Your task to perform on an android device: turn on javascript in the chrome app Image 0: 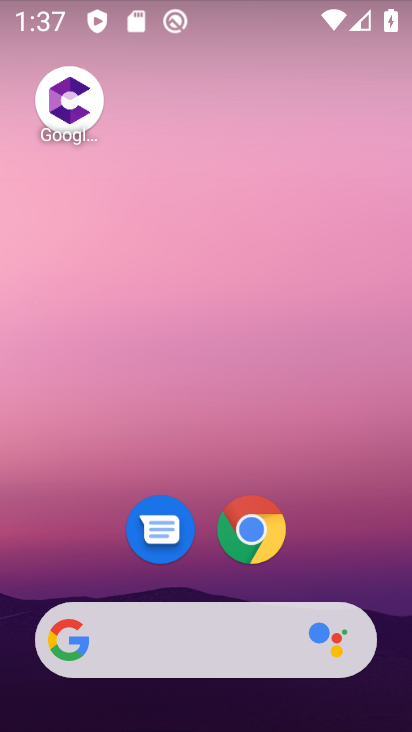
Step 0: click (252, 539)
Your task to perform on an android device: turn on javascript in the chrome app Image 1: 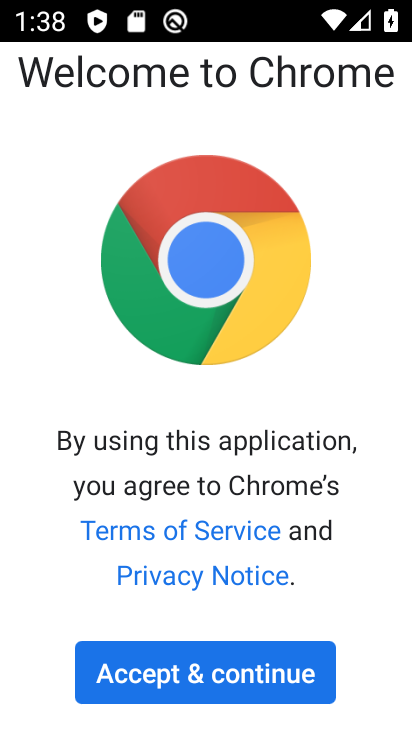
Step 1: click (258, 638)
Your task to perform on an android device: turn on javascript in the chrome app Image 2: 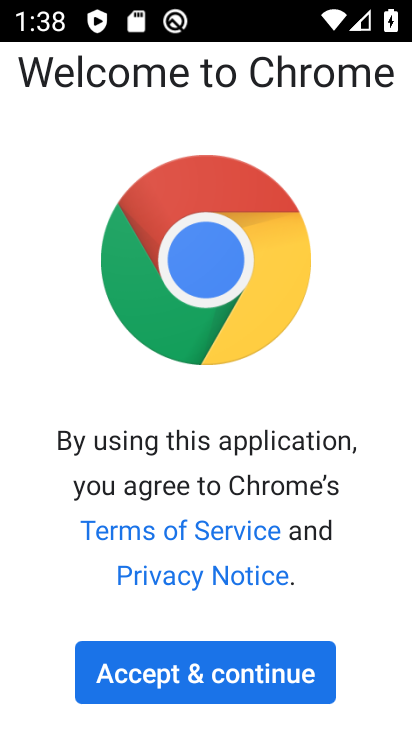
Step 2: click (209, 674)
Your task to perform on an android device: turn on javascript in the chrome app Image 3: 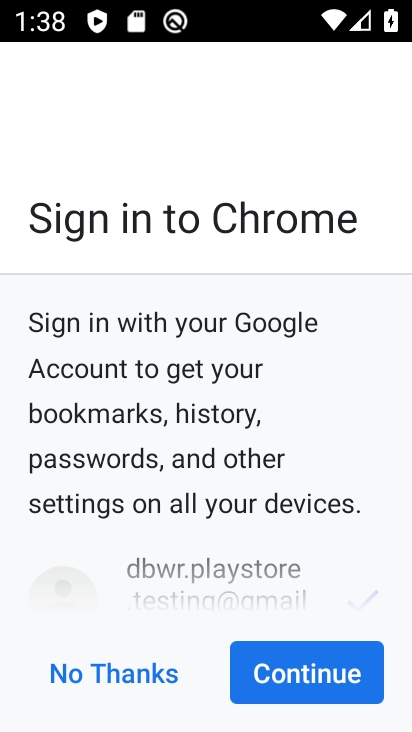
Step 3: click (364, 653)
Your task to perform on an android device: turn on javascript in the chrome app Image 4: 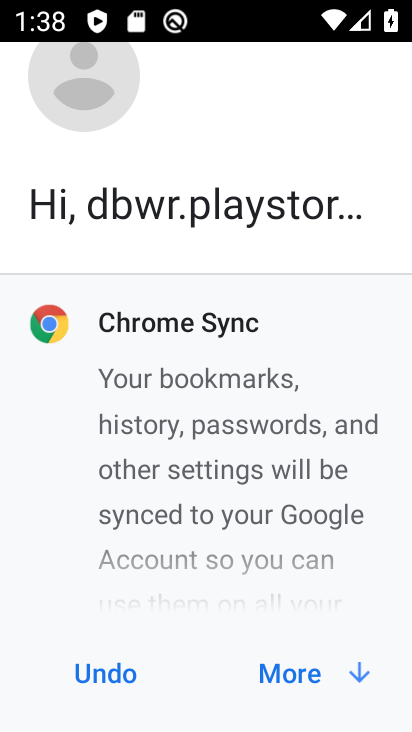
Step 4: click (352, 666)
Your task to perform on an android device: turn on javascript in the chrome app Image 5: 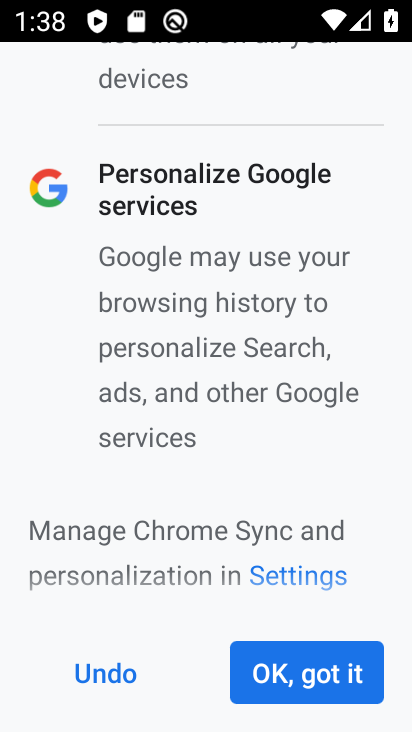
Step 5: click (285, 667)
Your task to perform on an android device: turn on javascript in the chrome app Image 6: 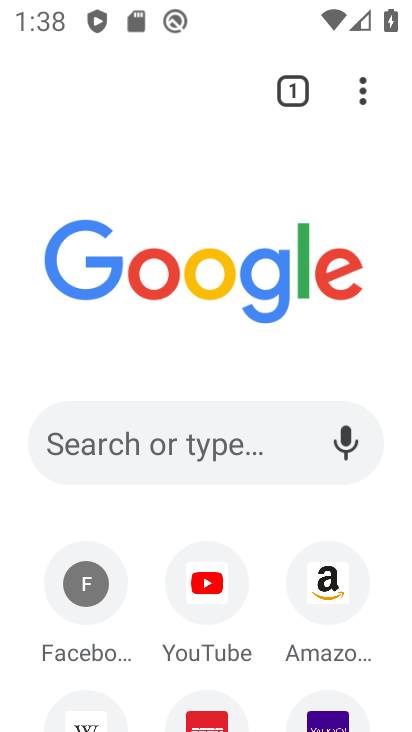
Step 6: click (375, 112)
Your task to perform on an android device: turn on javascript in the chrome app Image 7: 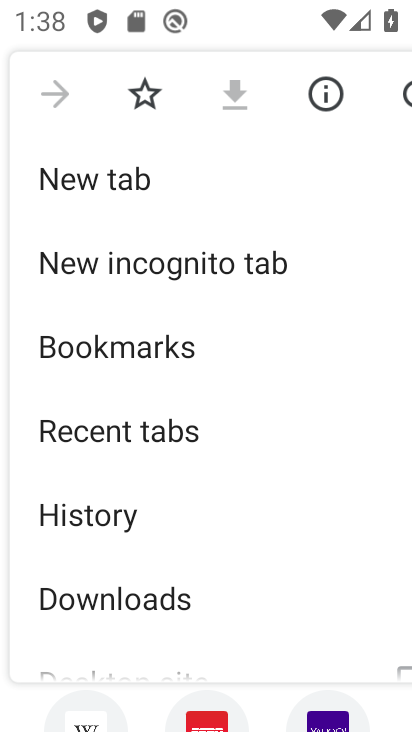
Step 7: drag from (234, 501) to (177, 204)
Your task to perform on an android device: turn on javascript in the chrome app Image 8: 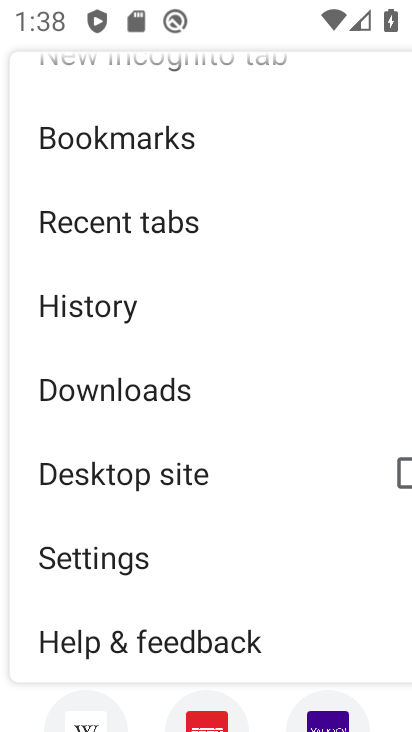
Step 8: click (201, 563)
Your task to perform on an android device: turn on javascript in the chrome app Image 9: 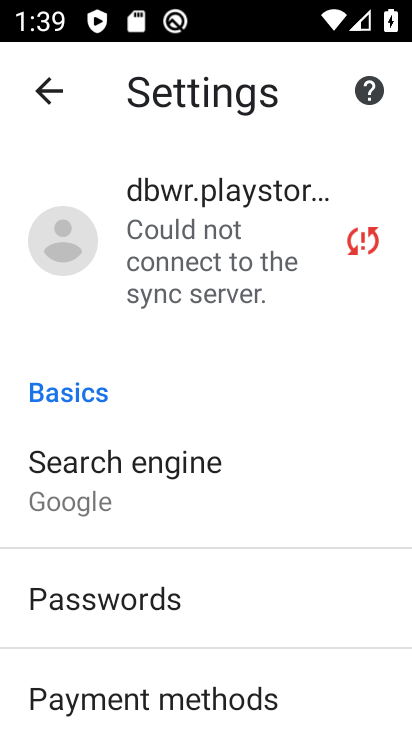
Step 9: drag from (188, 525) to (152, 280)
Your task to perform on an android device: turn on javascript in the chrome app Image 10: 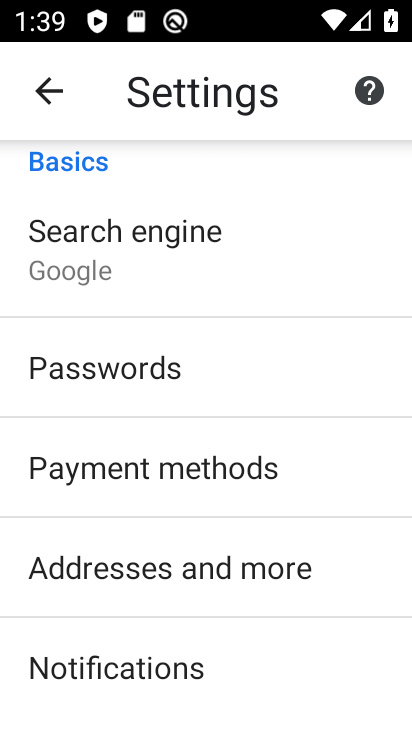
Step 10: drag from (233, 622) to (155, 304)
Your task to perform on an android device: turn on javascript in the chrome app Image 11: 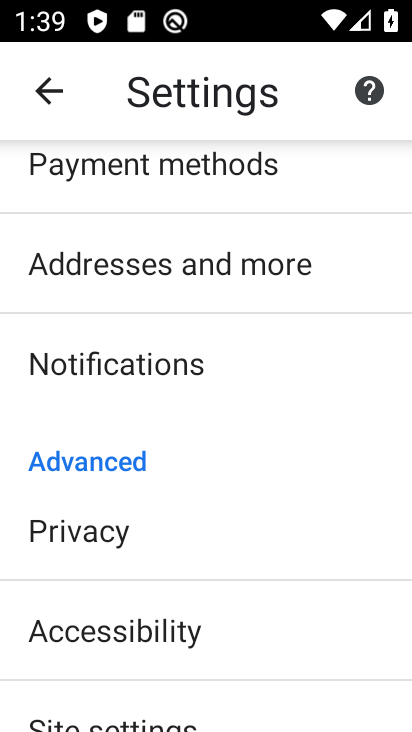
Step 11: click (209, 715)
Your task to perform on an android device: turn on javascript in the chrome app Image 12: 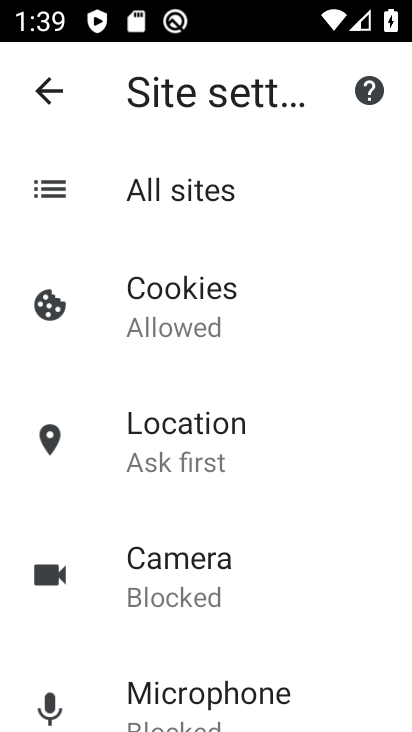
Step 12: drag from (307, 605) to (263, 386)
Your task to perform on an android device: turn on javascript in the chrome app Image 13: 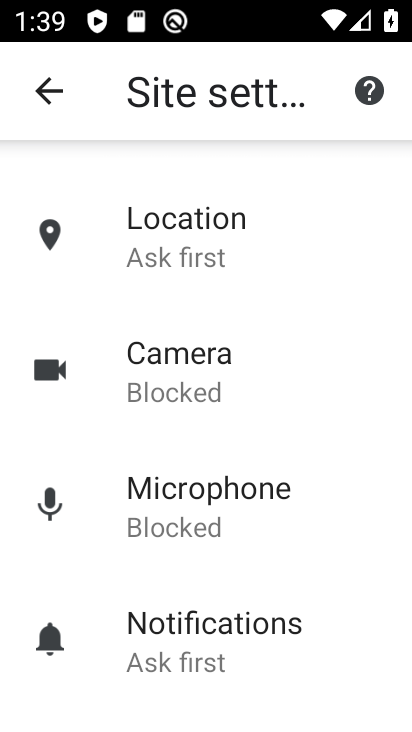
Step 13: drag from (308, 588) to (243, 327)
Your task to perform on an android device: turn on javascript in the chrome app Image 14: 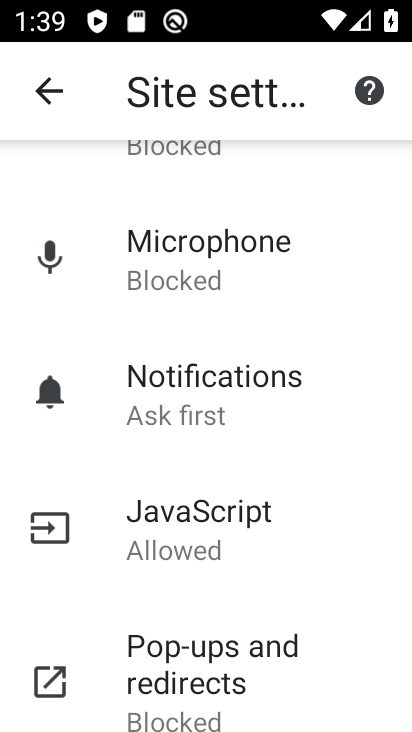
Step 14: click (238, 513)
Your task to perform on an android device: turn on javascript in the chrome app Image 15: 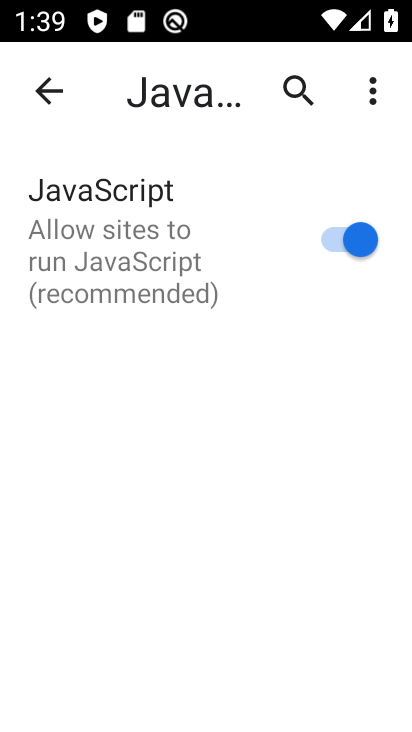
Step 15: task complete